Your task to perform on an android device: Open notification settings Image 0: 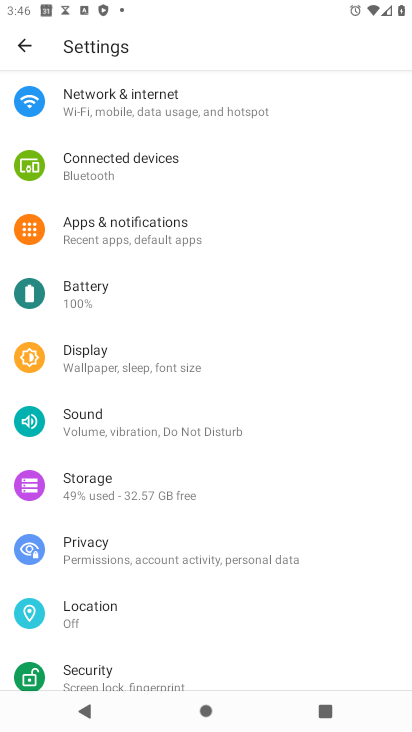
Step 0: click (143, 219)
Your task to perform on an android device: Open notification settings Image 1: 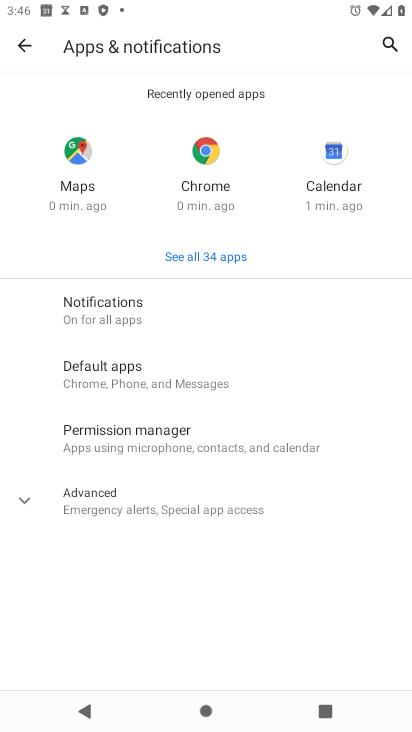
Step 1: task complete